Your task to perform on an android device: turn off sleep mode Image 0: 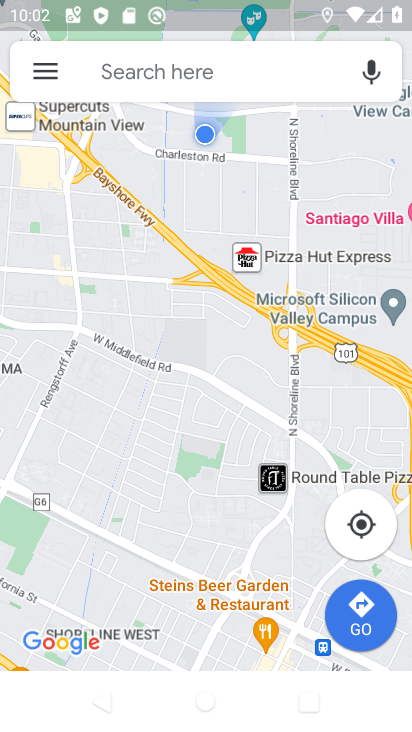
Step 0: press home button
Your task to perform on an android device: turn off sleep mode Image 1: 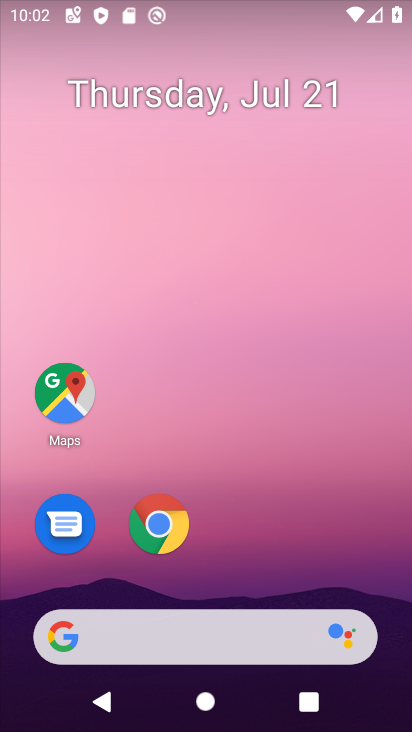
Step 1: drag from (203, 641) to (248, 24)
Your task to perform on an android device: turn off sleep mode Image 2: 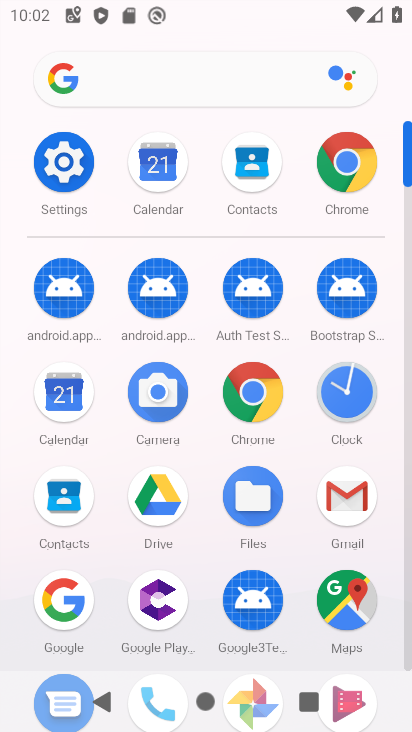
Step 2: click (62, 151)
Your task to perform on an android device: turn off sleep mode Image 3: 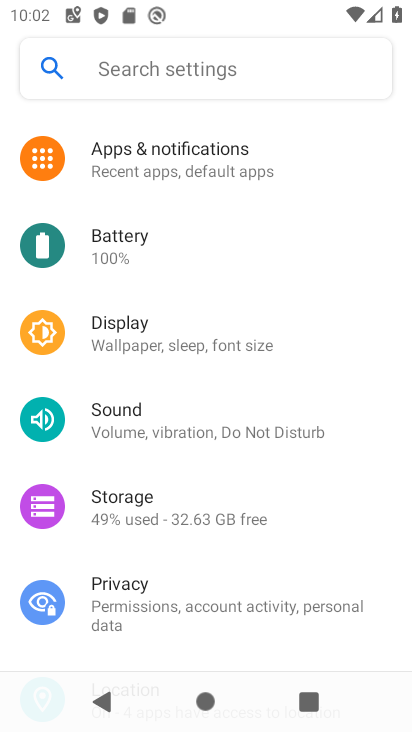
Step 3: drag from (198, 530) to (207, 190)
Your task to perform on an android device: turn off sleep mode Image 4: 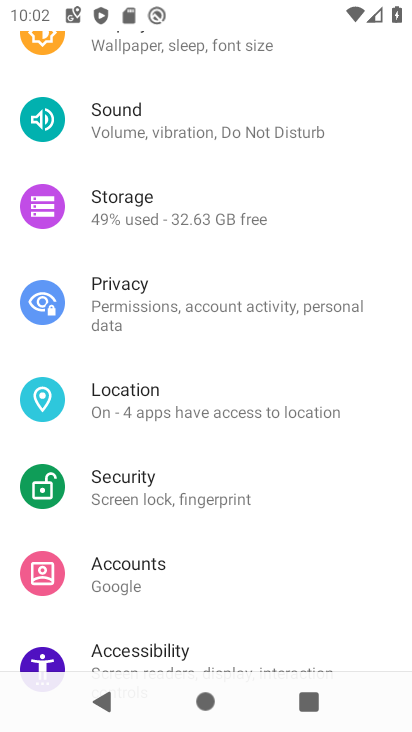
Step 4: drag from (250, 169) to (260, 602)
Your task to perform on an android device: turn off sleep mode Image 5: 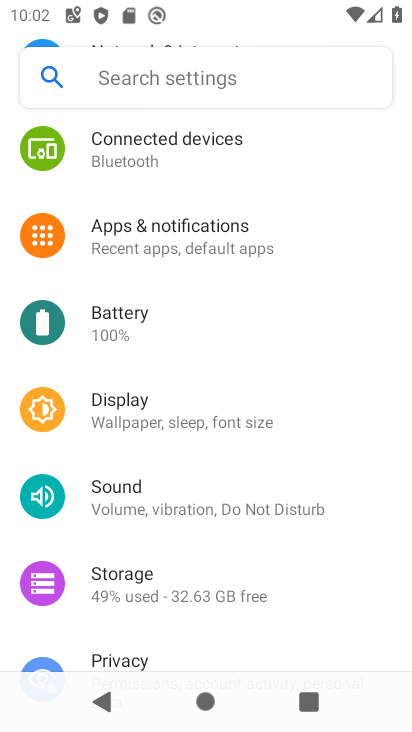
Step 5: drag from (264, 186) to (289, 265)
Your task to perform on an android device: turn off sleep mode Image 6: 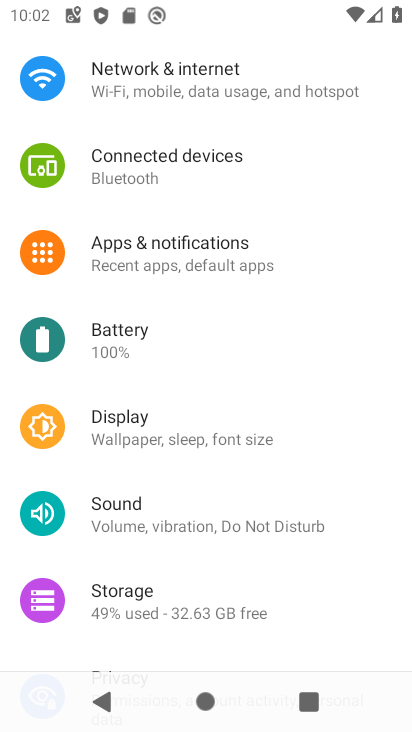
Step 6: click (128, 466)
Your task to perform on an android device: turn off sleep mode Image 7: 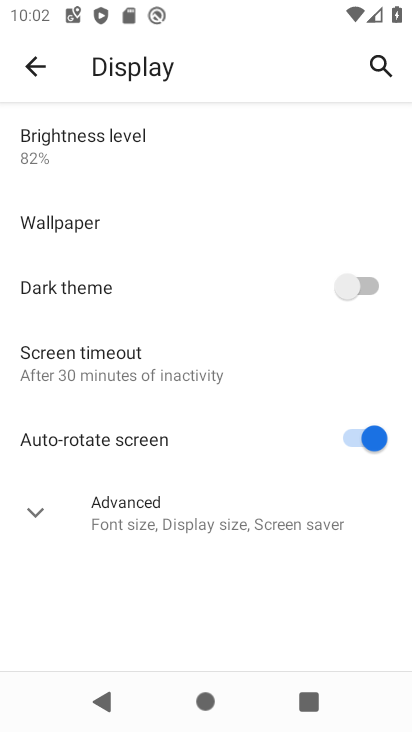
Step 7: click (147, 416)
Your task to perform on an android device: turn off sleep mode Image 8: 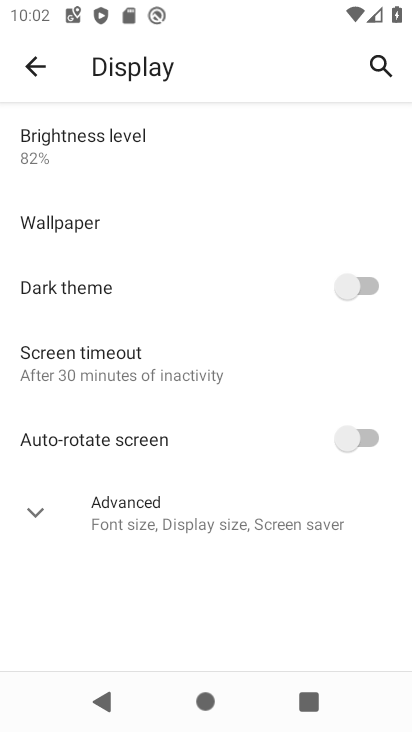
Step 8: task complete